Your task to perform on an android device: open app "McDonald's" (install if not already installed) Image 0: 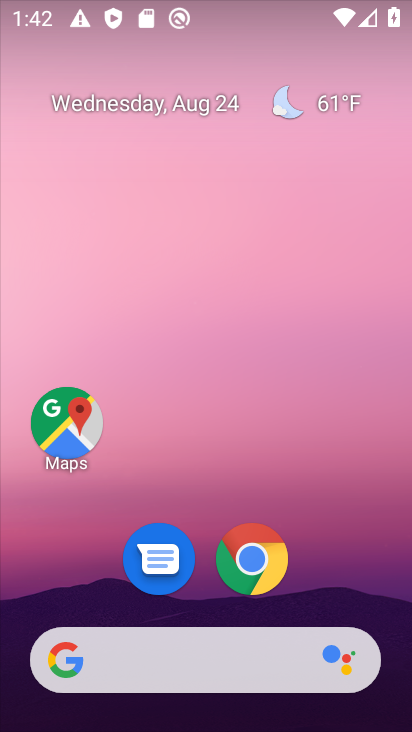
Step 0: drag from (179, 575) to (177, 123)
Your task to perform on an android device: open app "McDonald's" (install if not already installed) Image 1: 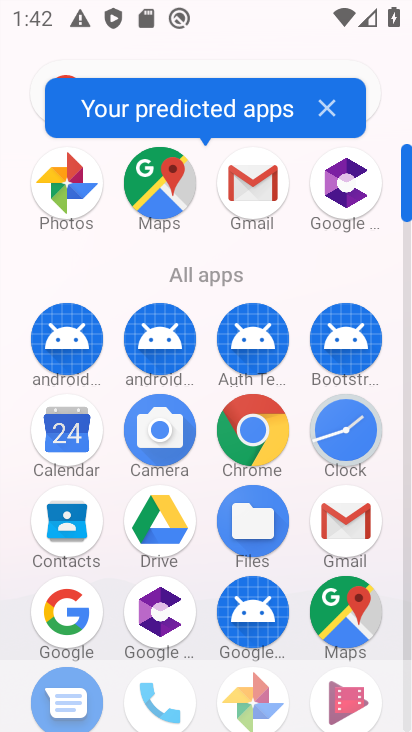
Step 1: drag from (200, 617) to (208, 256)
Your task to perform on an android device: open app "McDonald's" (install if not already installed) Image 2: 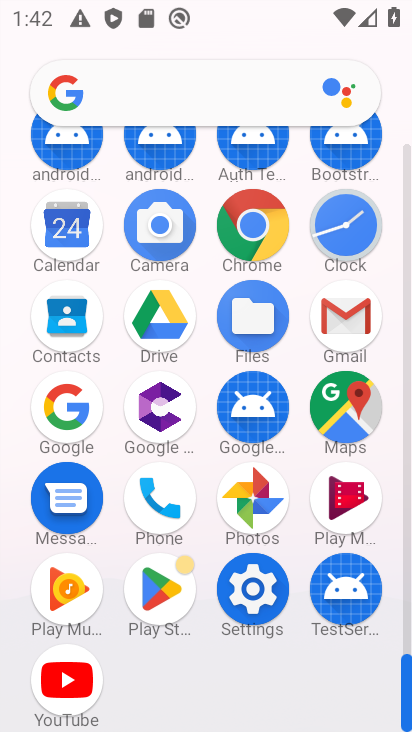
Step 2: click (161, 583)
Your task to perform on an android device: open app "McDonald's" (install if not already installed) Image 3: 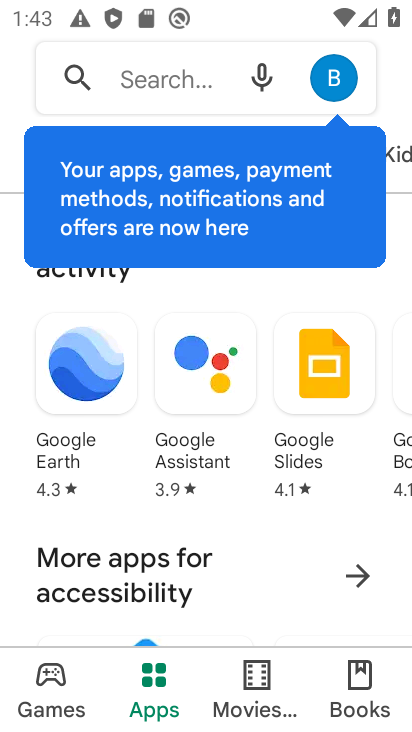
Step 3: click (170, 84)
Your task to perform on an android device: open app "McDonald's" (install if not already installed) Image 4: 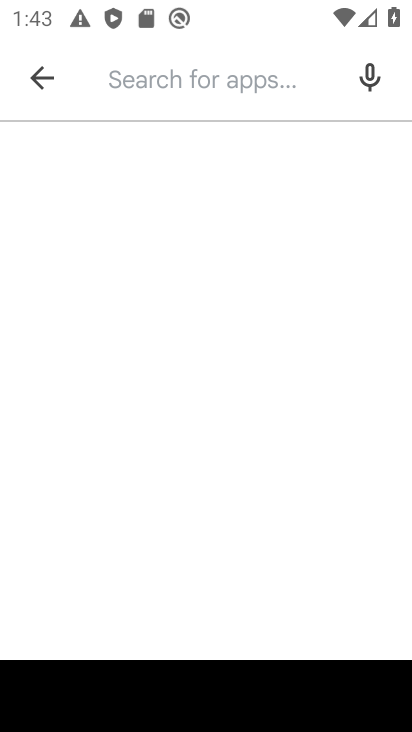
Step 4: type "McDonald's"
Your task to perform on an android device: open app "McDonald's" (install if not already installed) Image 5: 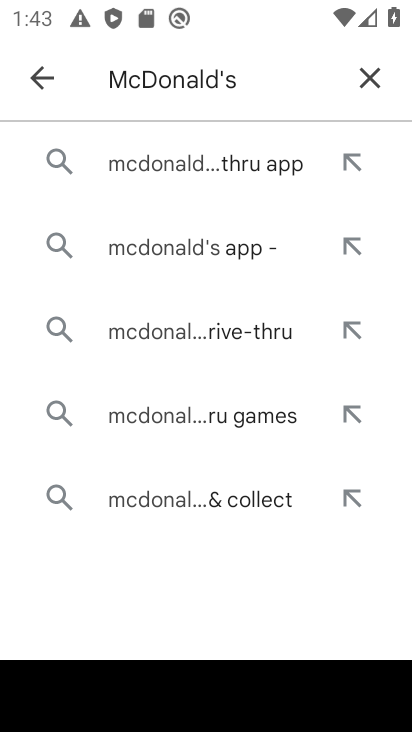
Step 5: click (179, 258)
Your task to perform on an android device: open app "McDonald's" (install if not already installed) Image 6: 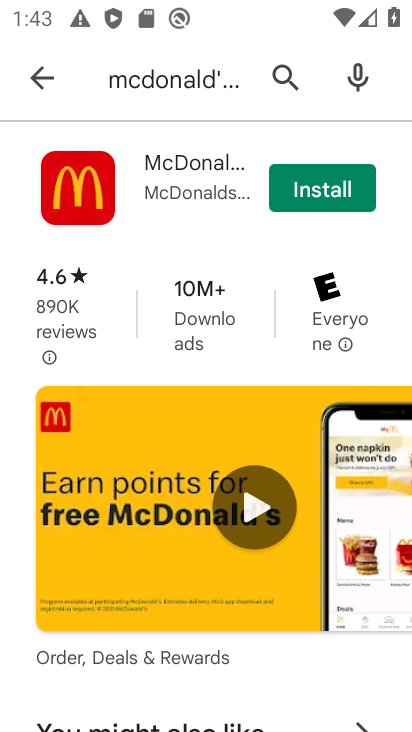
Step 6: click (330, 191)
Your task to perform on an android device: open app "McDonald's" (install if not already installed) Image 7: 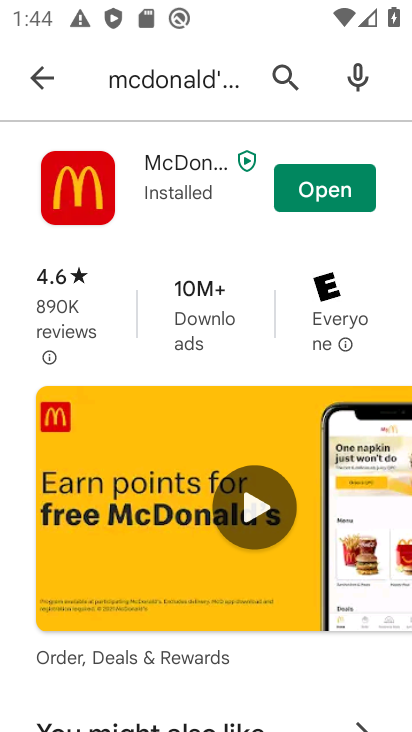
Step 7: click (315, 190)
Your task to perform on an android device: open app "McDonald's" (install if not already installed) Image 8: 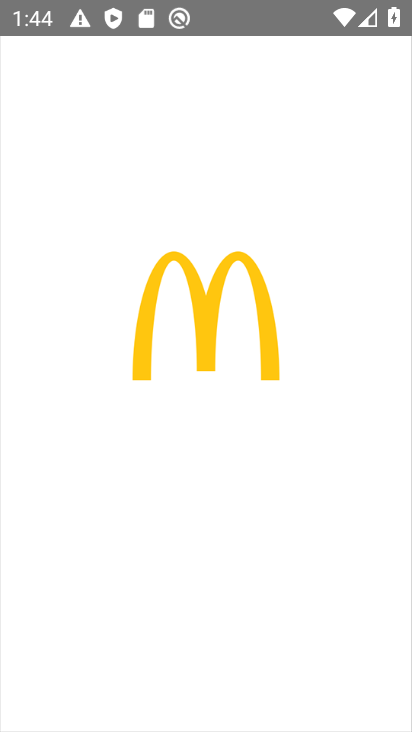
Step 8: task complete